Your task to perform on an android device: clear all cookies in the chrome app Image 0: 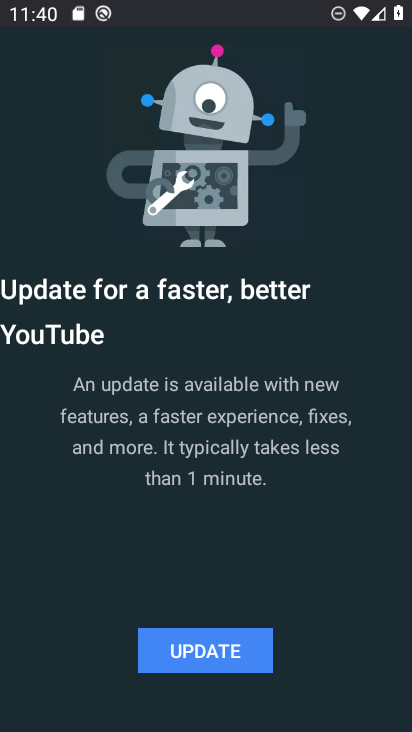
Step 0: press home button
Your task to perform on an android device: clear all cookies in the chrome app Image 1: 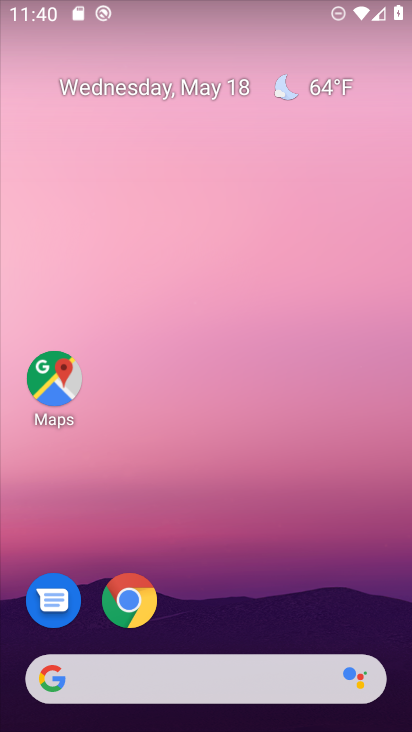
Step 1: click (133, 596)
Your task to perform on an android device: clear all cookies in the chrome app Image 2: 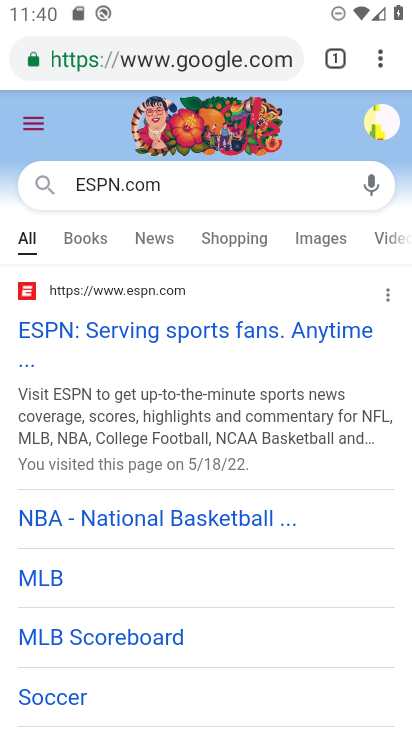
Step 2: click (382, 57)
Your task to perform on an android device: clear all cookies in the chrome app Image 3: 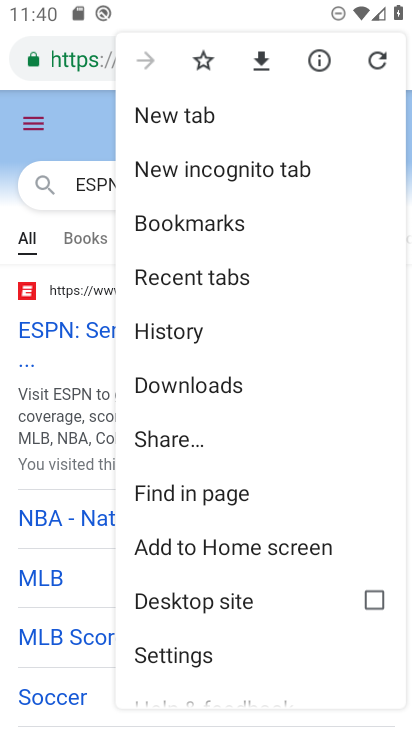
Step 3: drag from (202, 623) to (253, 310)
Your task to perform on an android device: clear all cookies in the chrome app Image 4: 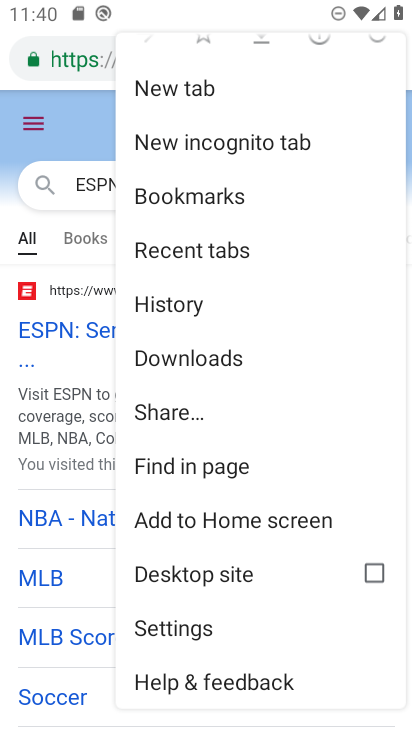
Step 4: click (204, 315)
Your task to perform on an android device: clear all cookies in the chrome app Image 5: 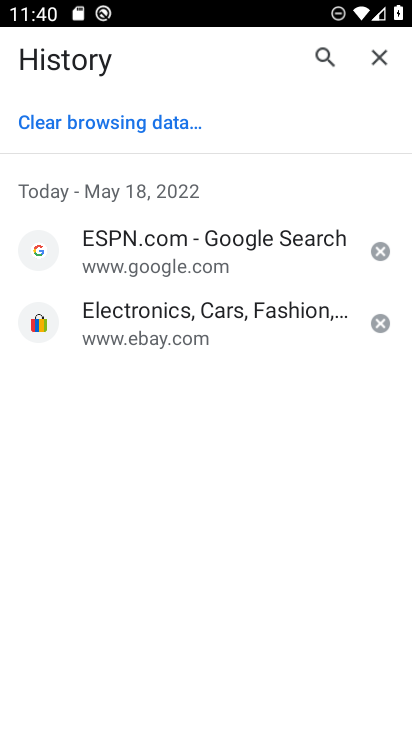
Step 5: click (129, 124)
Your task to perform on an android device: clear all cookies in the chrome app Image 6: 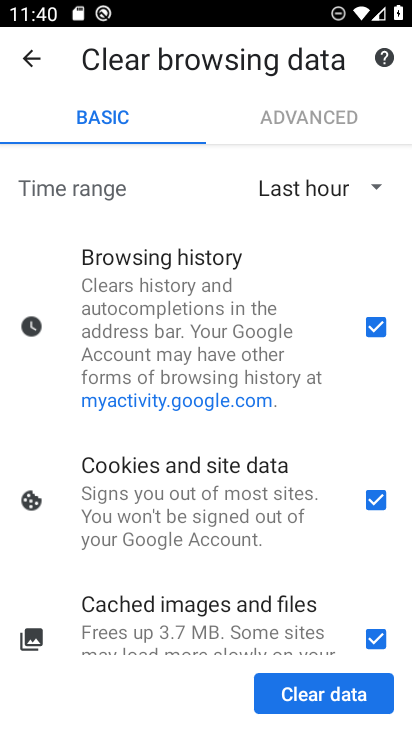
Step 6: click (319, 711)
Your task to perform on an android device: clear all cookies in the chrome app Image 7: 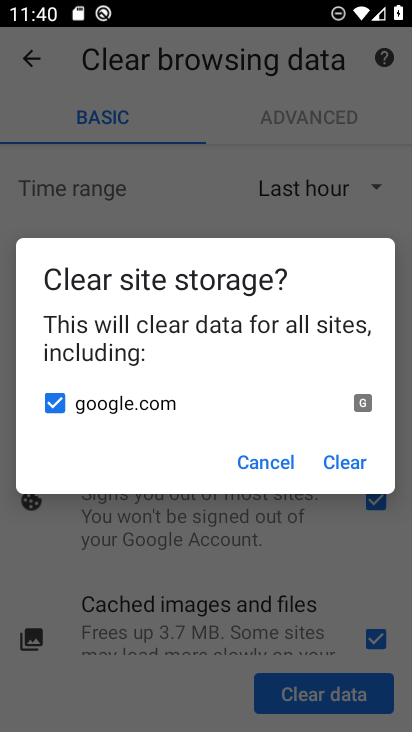
Step 7: click (319, 698)
Your task to perform on an android device: clear all cookies in the chrome app Image 8: 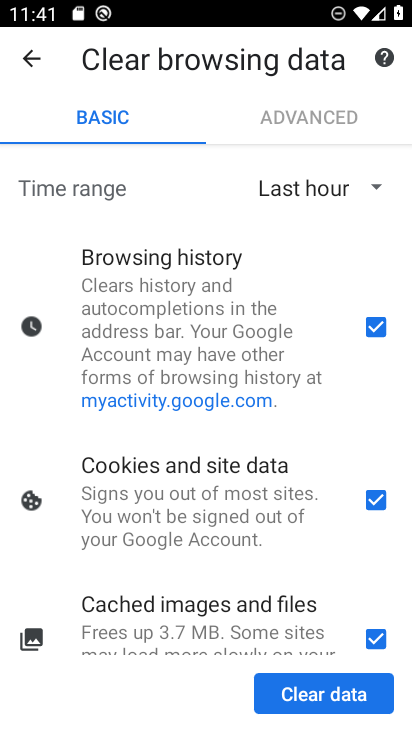
Step 8: click (336, 705)
Your task to perform on an android device: clear all cookies in the chrome app Image 9: 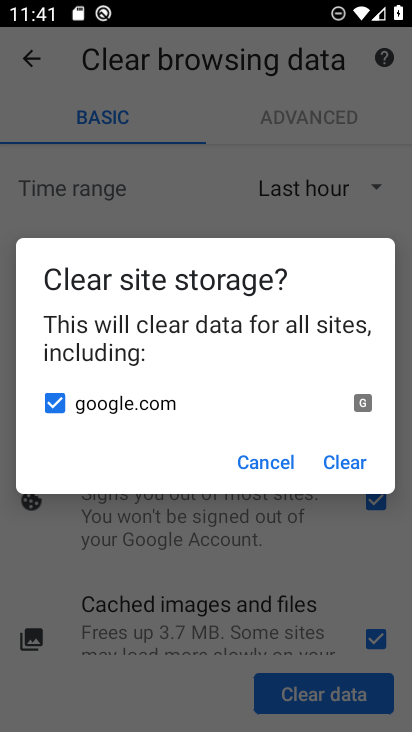
Step 9: click (328, 450)
Your task to perform on an android device: clear all cookies in the chrome app Image 10: 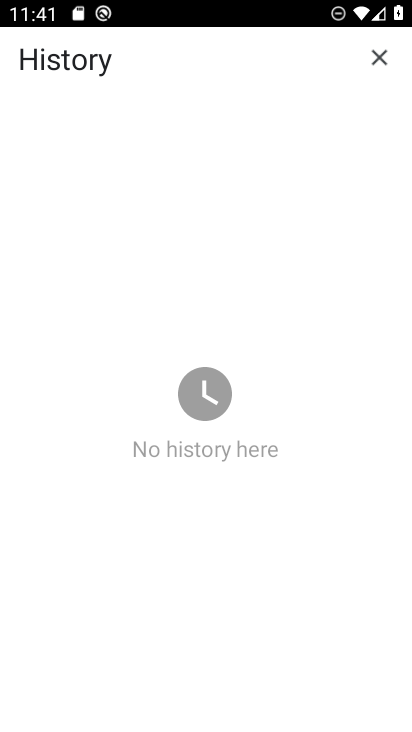
Step 10: task complete